Your task to perform on an android device: Open the Play Movies app and select the watchlist tab. Image 0: 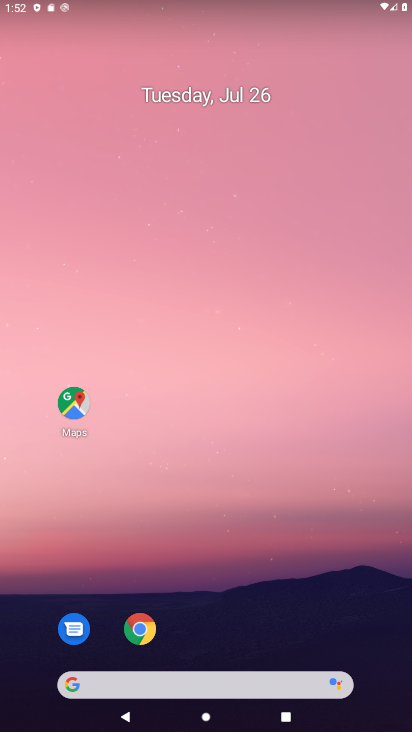
Step 0: drag from (381, 664) to (338, 205)
Your task to perform on an android device: Open the Play Movies app and select the watchlist tab. Image 1: 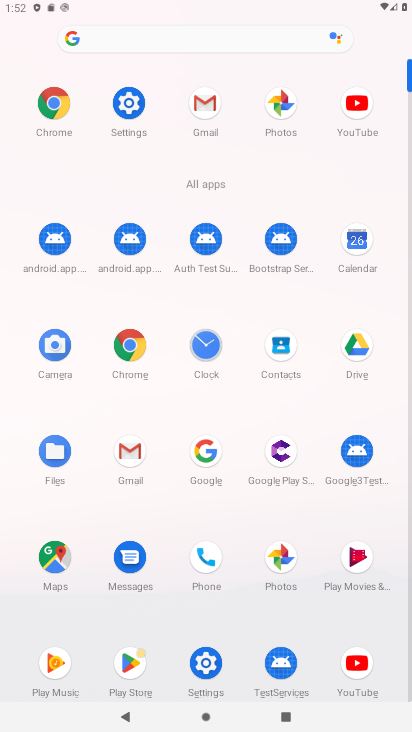
Step 1: click (358, 559)
Your task to perform on an android device: Open the Play Movies app and select the watchlist tab. Image 2: 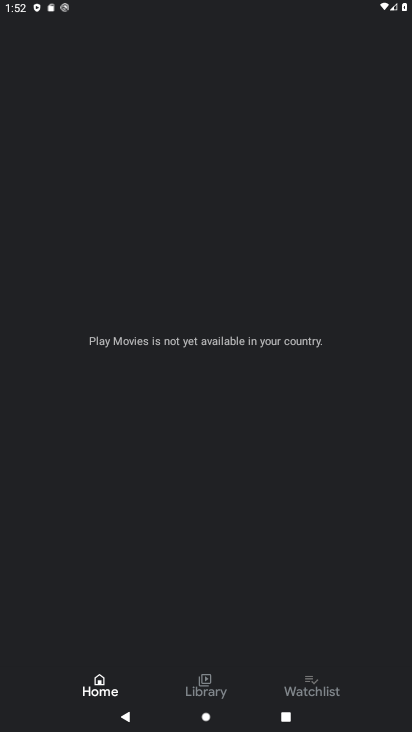
Step 2: click (310, 686)
Your task to perform on an android device: Open the Play Movies app and select the watchlist tab. Image 3: 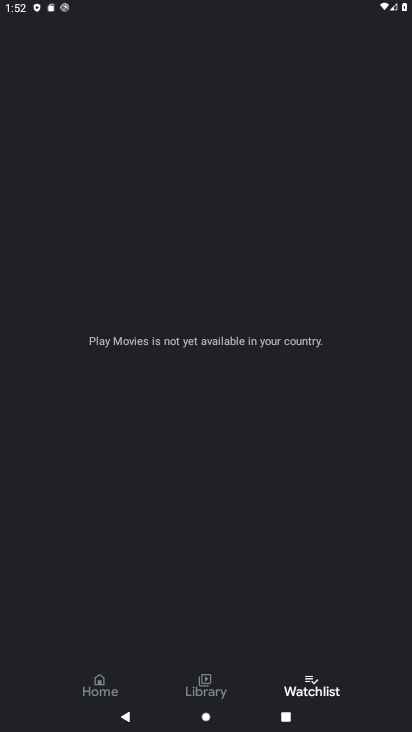
Step 3: task complete